Your task to perform on an android device: Open Chrome and go to settings Image 0: 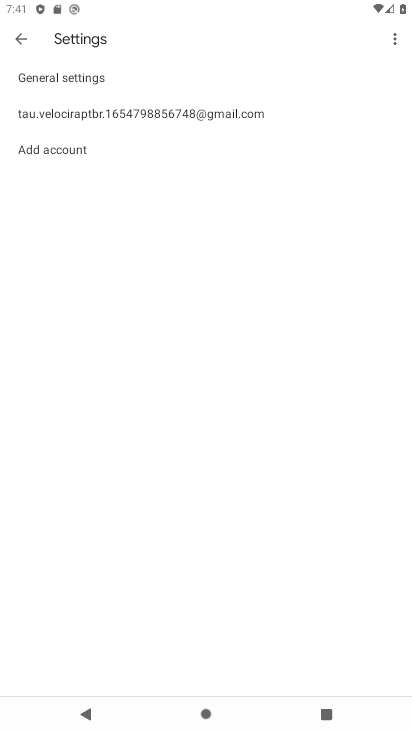
Step 0: press home button
Your task to perform on an android device: Open Chrome and go to settings Image 1: 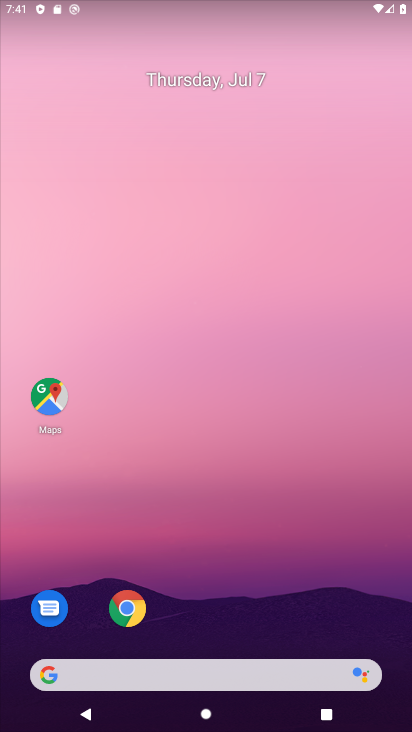
Step 1: click (127, 600)
Your task to perform on an android device: Open Chrome and go to settings Image 2: 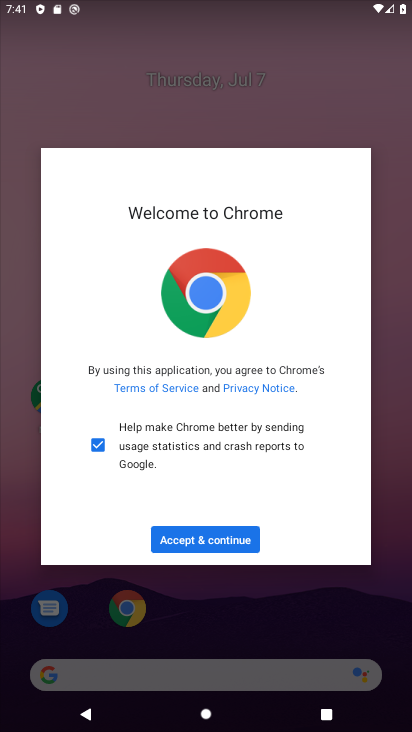
Step 2: click (233, 533)
Your task to perform on an android device: Open Chrome and go to settings Image 3: 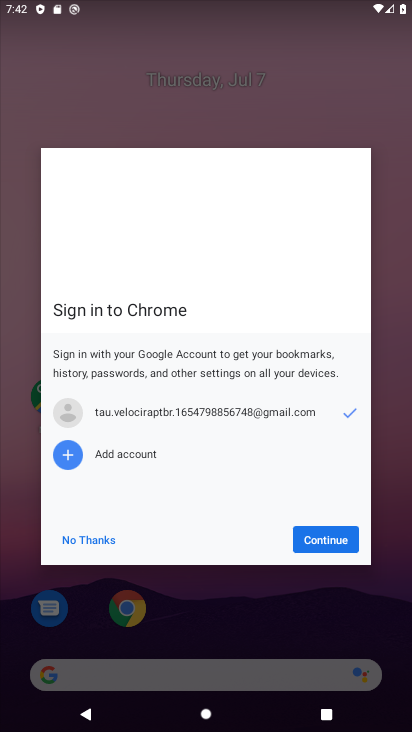
Step 3: click (310, 535)
Your task to perform on an android device: Open Chrome and go to settings Image 4: 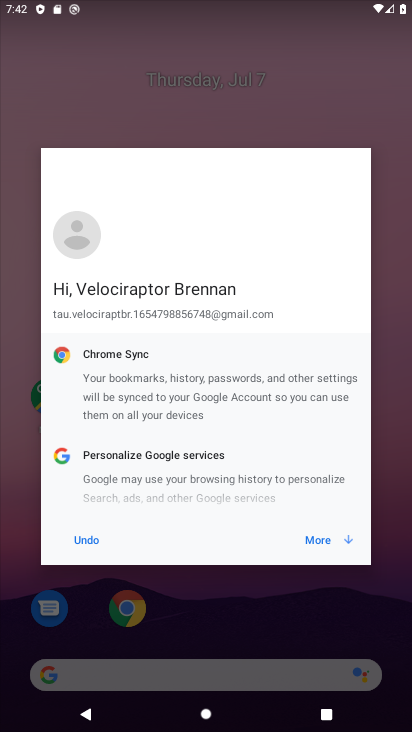
Step 4: click (310, 535)
Your task to perform on an android device: Open Chrome and go to settings Image 5: 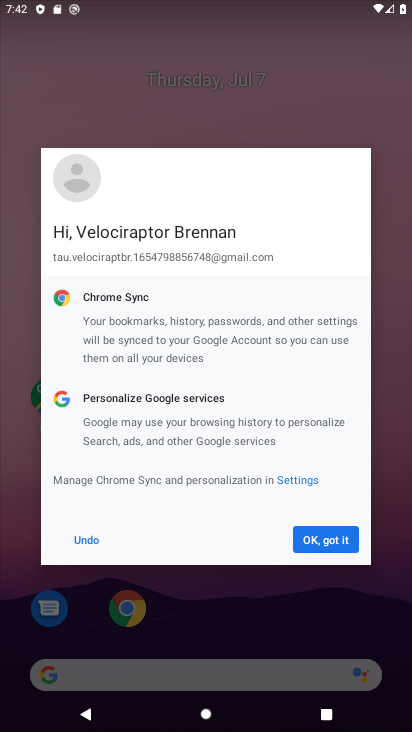
Step 5: click (310, 535)
Your task to perform on an android device: Open Chrome and go to settings Image 6: 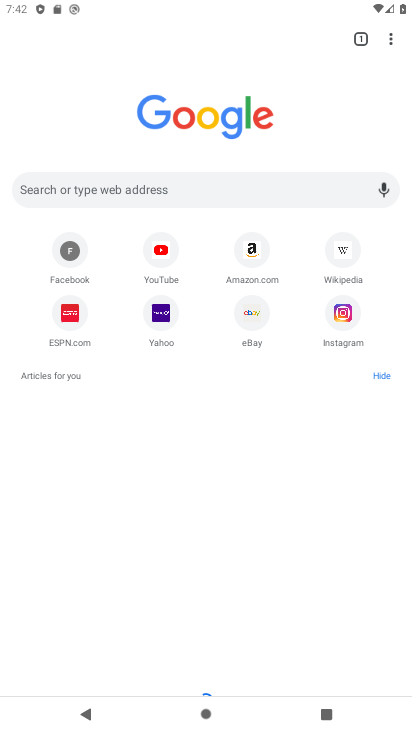
Step 6: click (393, 37)
Your task to perform on an android device: Open Chrome and go to settings Image 7: 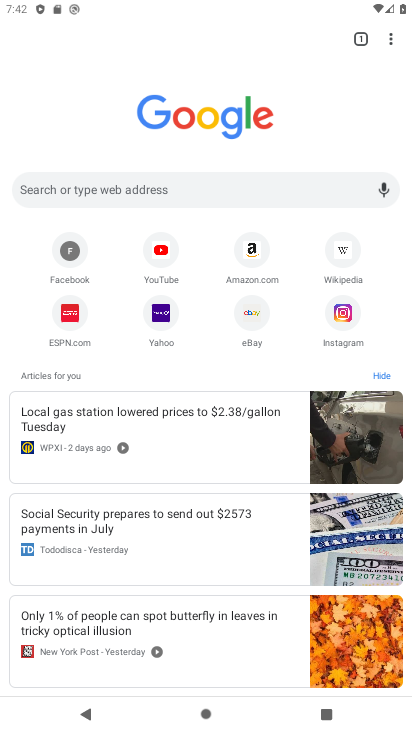
Step 7: click (391, 39)
Your task to perform on an android device: Open Chrome and go to settings Image 8: 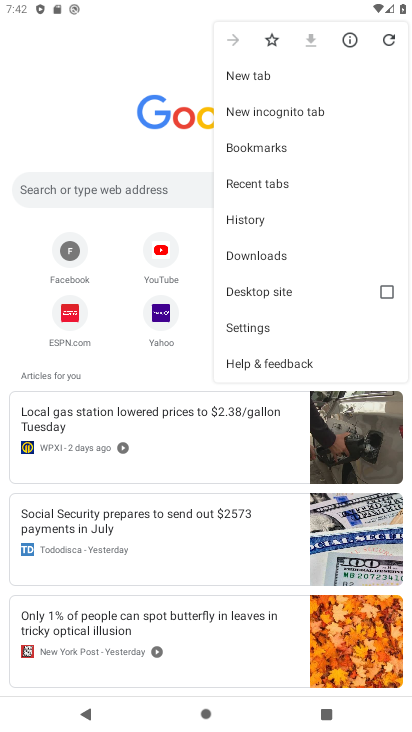
Step 8: click (249, 325)
Your task to perform on an android device: Open Chrome and go to settings Image 9: 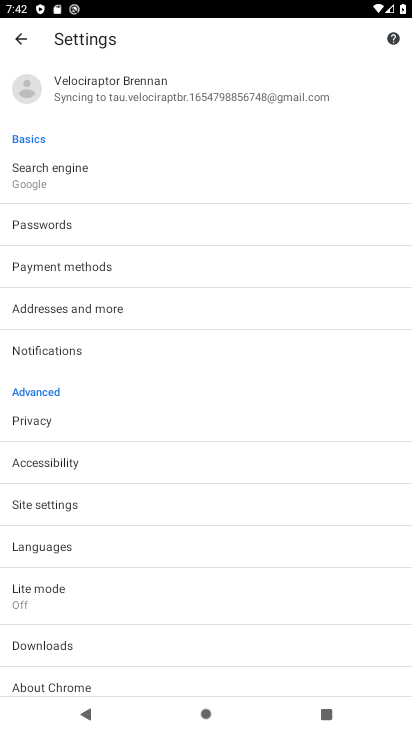
Step 9: task complete